Your task to perform on an android device: What's the weather going to be tomorrow? Image 0: 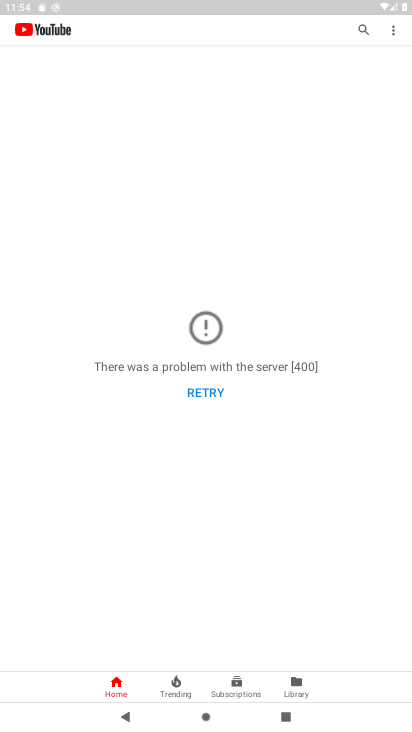
Step 0: press home button
Your task to perform on an android device: What's the weather going to be tomorrow? Image 1: 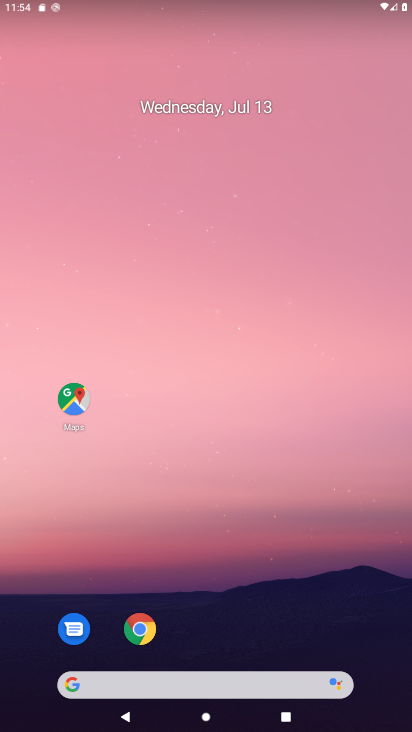
Step 1: drag from (248, 615) to (280, 131)
Your task to perform on an android device: What's the weather going to be tomorrow? Image 2: 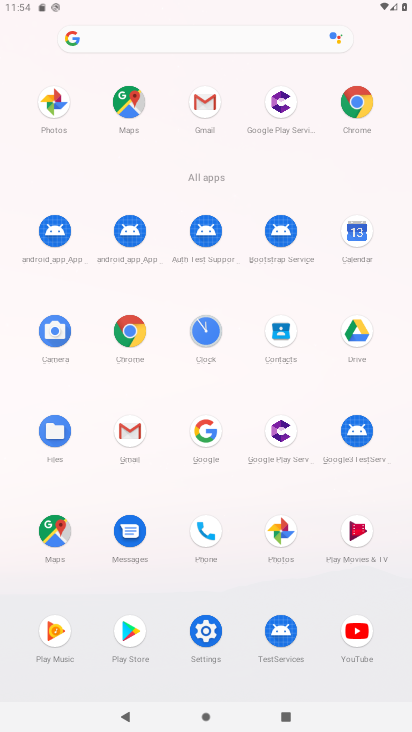
Step 2: click (220, 50)
Your task to perform on an android device: What's the weather going to be tomorrow? Image 3: 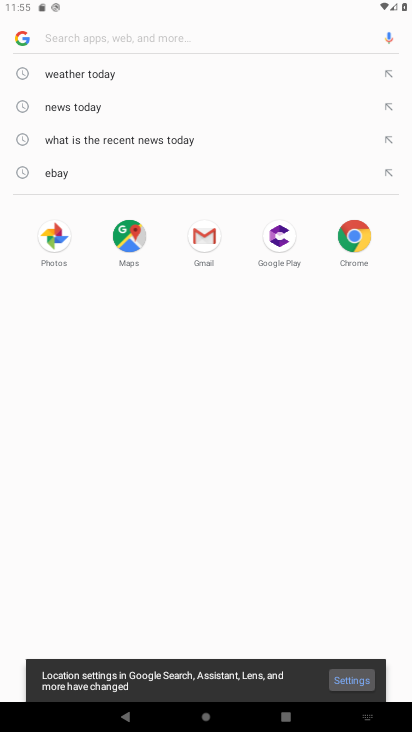
Step 3: click (198, 71)
Your task to perform on an android device: What's the weather going to be tomorrow? Image 4: 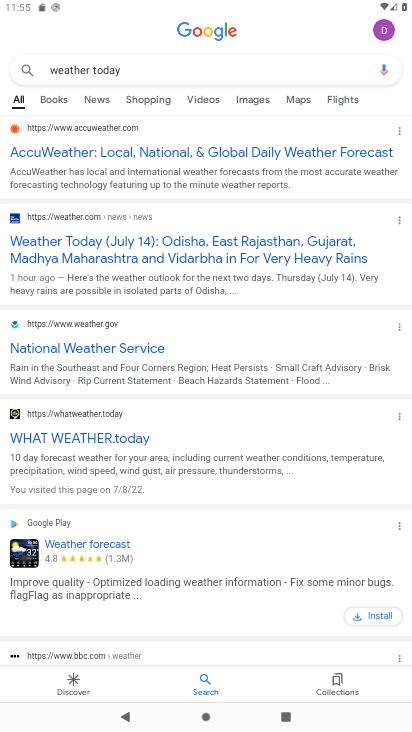
Step 4: task complete